Your task to perform on an android device: Go to Google Image 0: 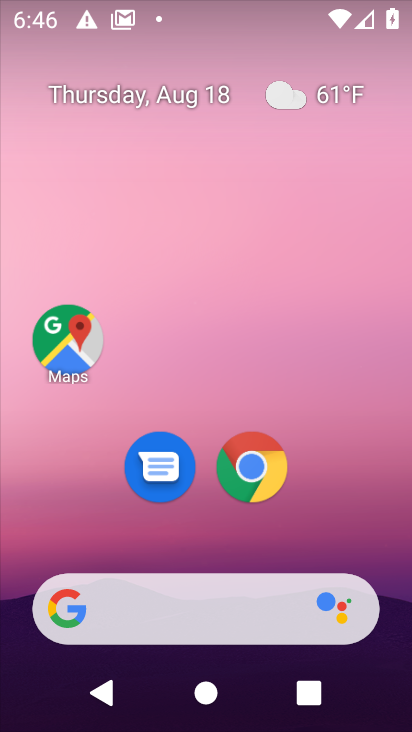
Step 0: click (261, 628)
Your task to perform on an android device: Go to Google Image 1: 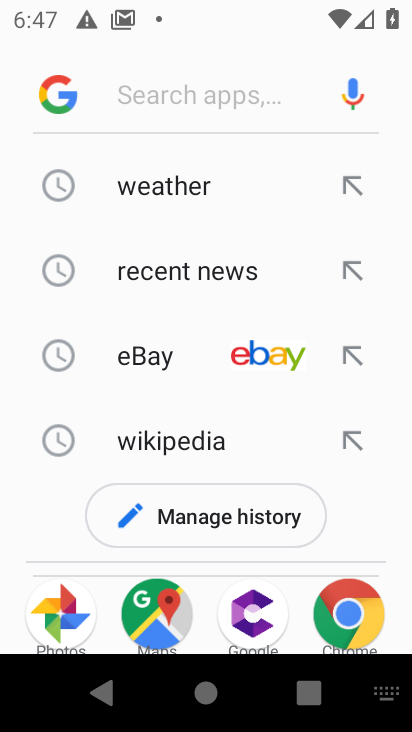
Step 1: task complete